Your task to perform on an android device: turn off notifications in google photos Image 0: 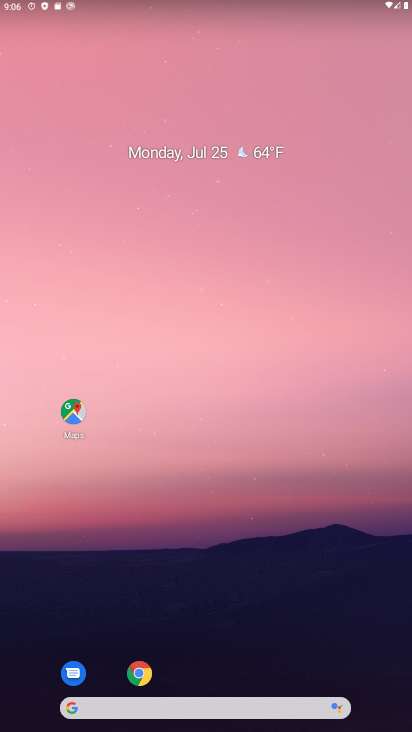
Step 0: drag from (214, 670) to (230, 59)
Your task to perform on an android device: turn off notifications in google photos Image 1: 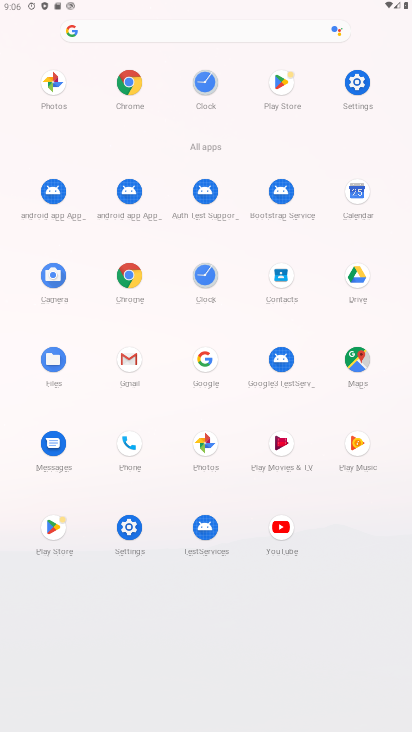
Step 1: click (202, 437)
Your task to perform on an android device: turn off notifications in google photos Image 2: 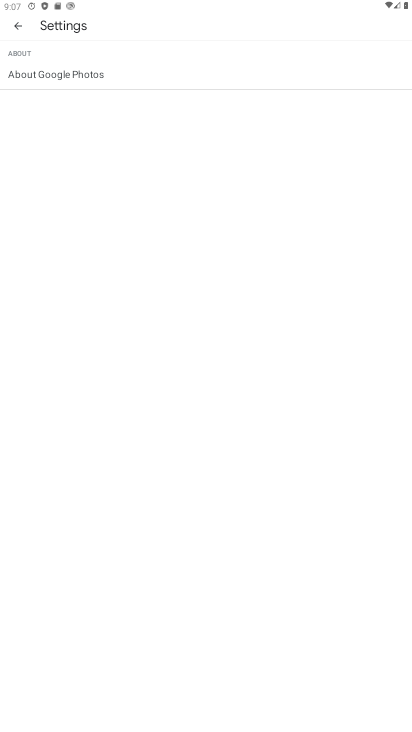
Step 2: click (16, 31)
Your task to perform on an android device: turn off notifications in google photos Image 3: 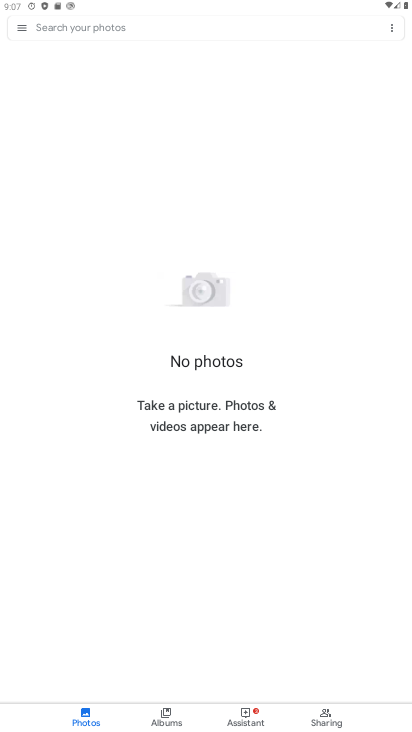
Step 3: click (12, 27)
Your task to perform on an android device: turn off notifications in google photos Image 4: 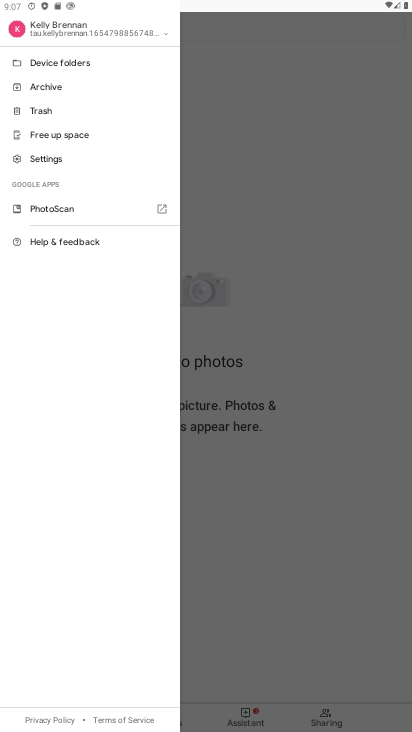
Step 4: click (54, 153)
Your task to perform on an android device: turn off notifications in google photos Image 5: 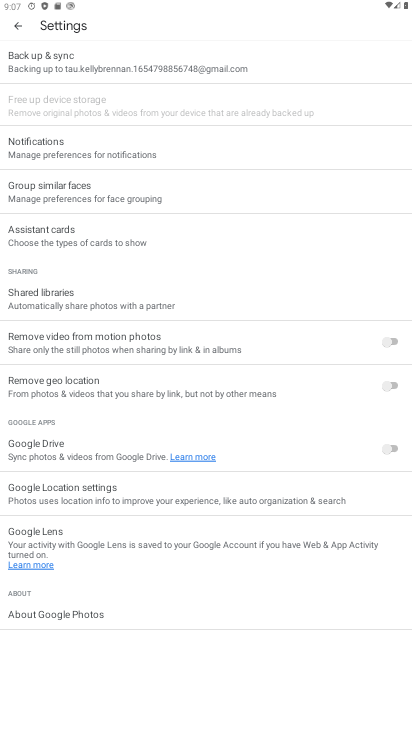
Step 5: click (85, 144)
Your task to perform on an android device: turn off notifications in google photos Image 6: 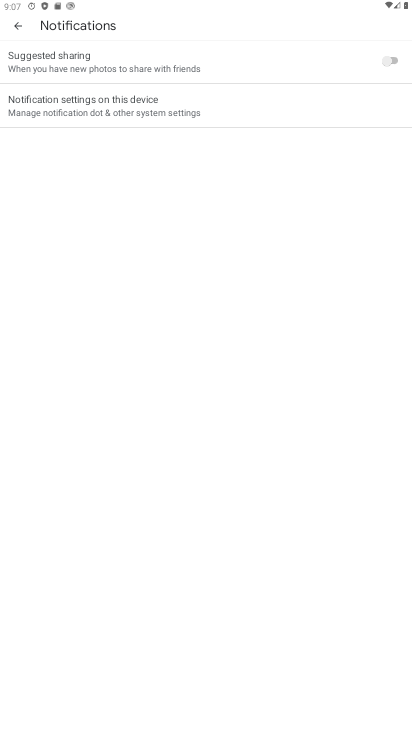
Step 6: click (130, 112)
Your task to perform on an android device: turn off notifications in google photos Image 7: 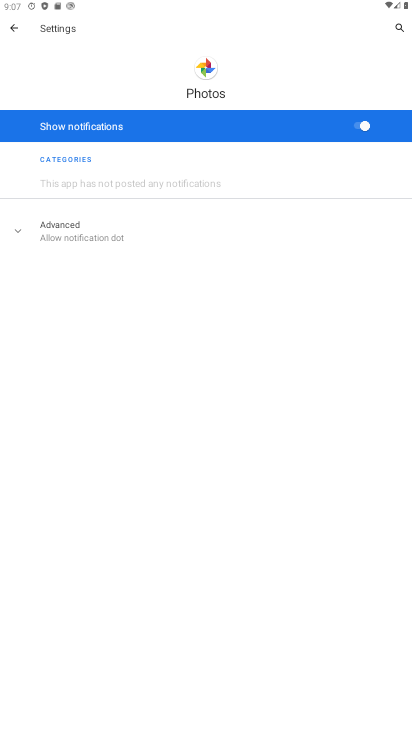
Step 7: click (357, 122)
Your task to perform on an android device: turn off notifications in google photos Image 8: 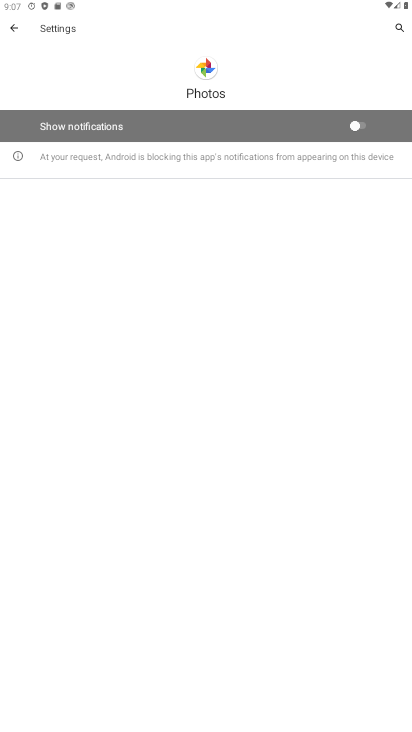
Step 8: task complete